Your task to perform on an android device: Open Yahoo.com Image 0: 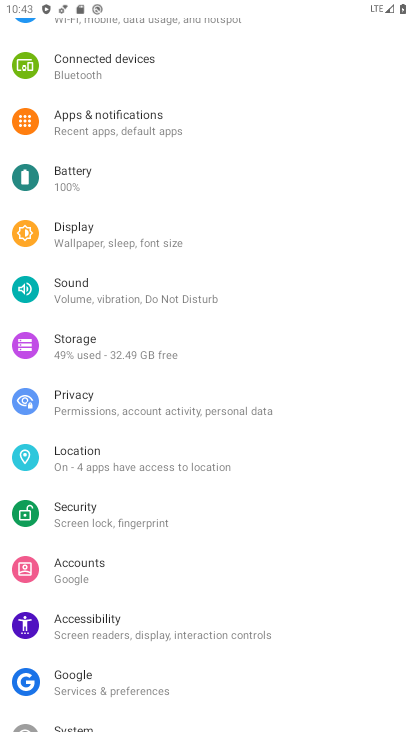
Step 0: press home button
Your task to perform on an android device: Open Yahoo.com Image 1: 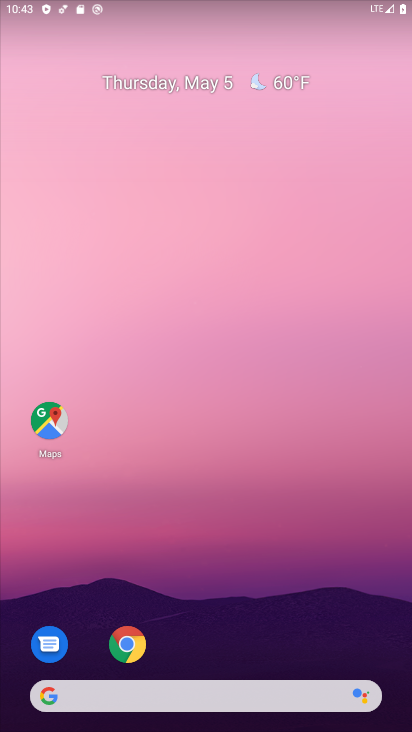
Step 1: drag from (358, 642) to (317, 169)
Your task to perform on an android device: Open Yahoo.com Image 2: 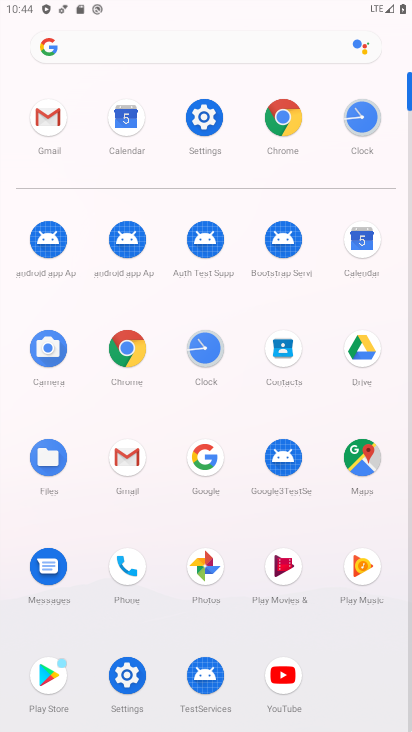
Step 2: click (133, 350)
Your task to perform on an android device: Open Yahoo.com Image 3: 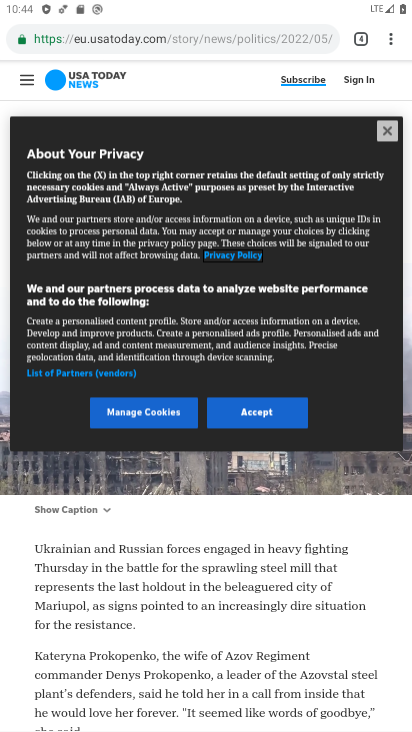
Step 3: click (361, 42)
Your task to perform on an android device: Open Yahoo.com Image 4: 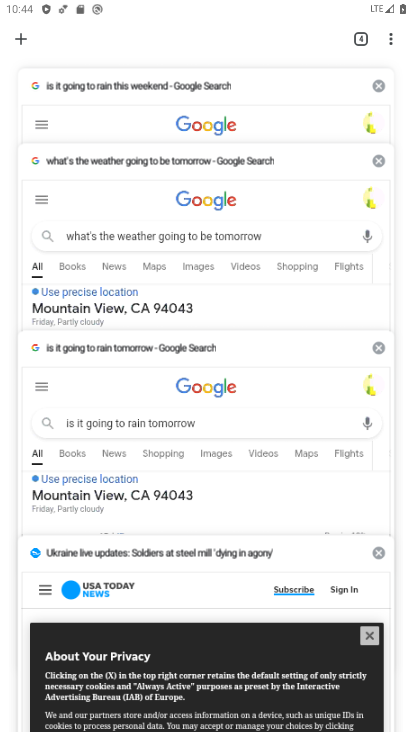
Step 4: click (16, 36)
Your task to perform on an android device: Open Yahoo.com Image 5: 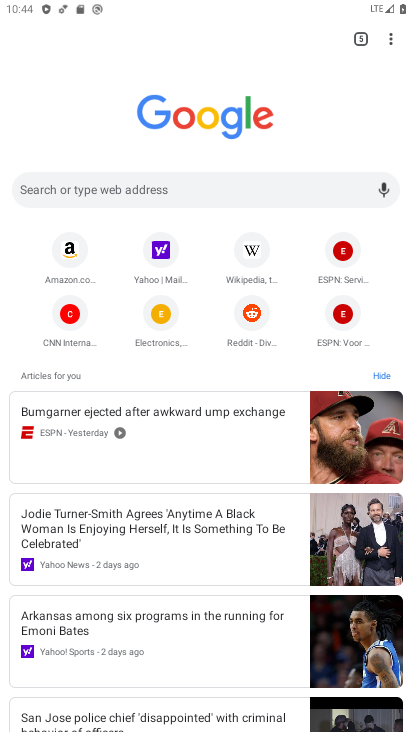
Step 5: click (166, 197)
Your task to perform on an android device: Open Yahoo.com Image 6: 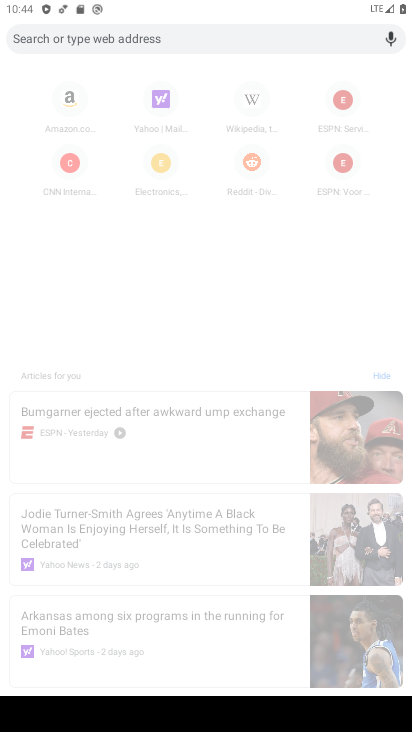
Step 6: type "yahoo.com"
Your task to perform on an android device: Open Yahoo.com Image 7: 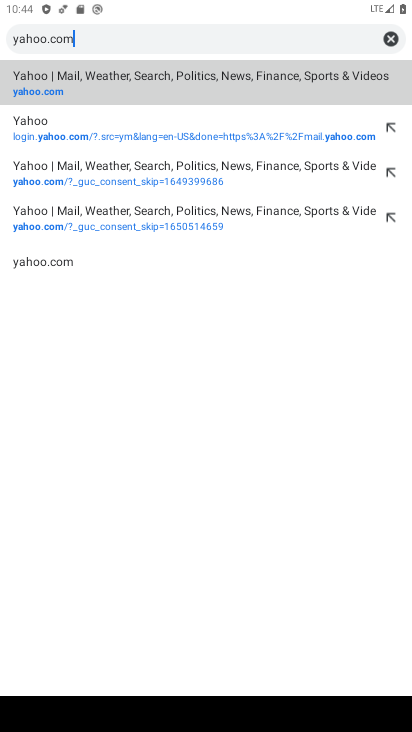
Step 7: click (59, 87)
Your task to perform on an android device: Open Yahoo.com Image 8: 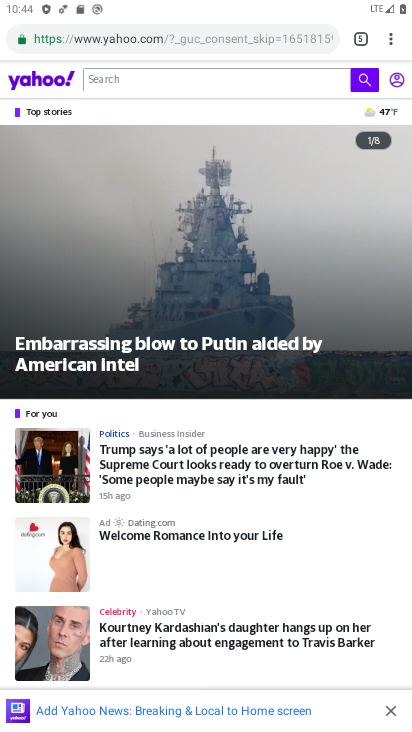
Step 8: task complete